Your task to perform on an android device: search for starred emails in the gmail app Image 0: 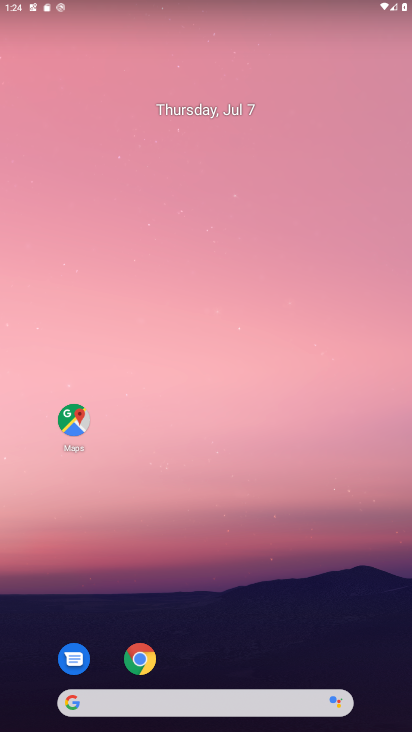
Step 0: drag from (212, 667) to (295, 189)
Your task to perform on an android device: search for starred emails in the gmail app Image 1: 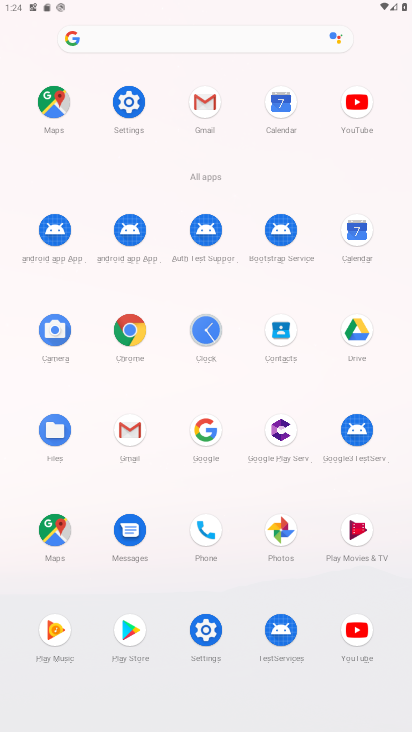
Step 1: click (198, 99)
Your task to perform on an android device: search for starred emails in the gmail app Image 2: 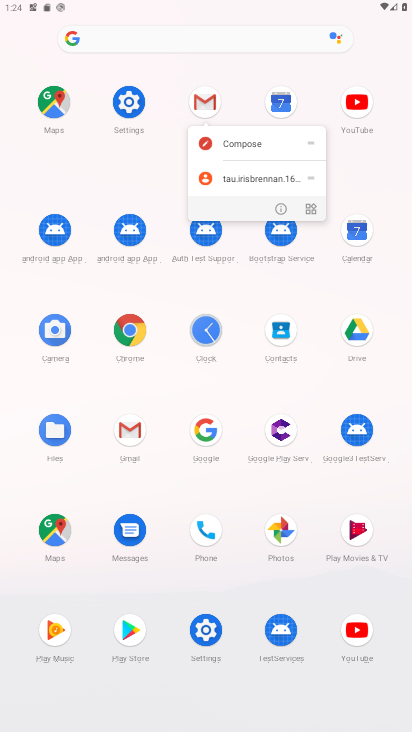
Step 2: click (279, 214)
Your task to perform on an android device: search for starred emails in the gmail app Image 3: 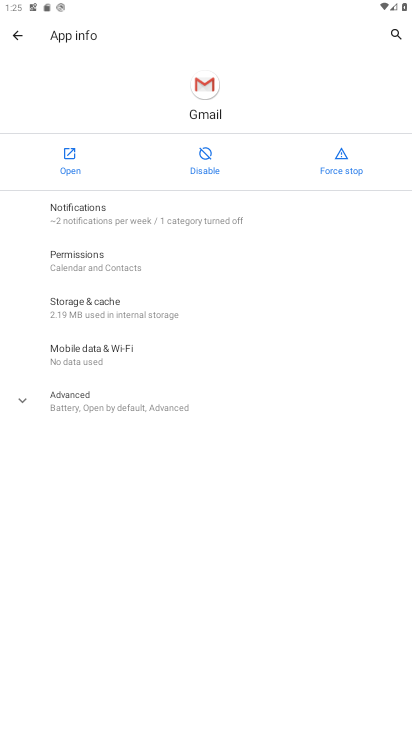
Step 3: click (66, 144)
Your task to perform on an android device: search for starred emails in the gmail app Image 4: 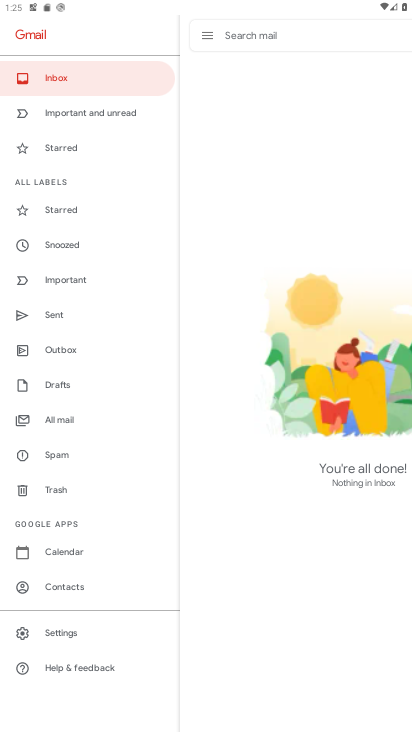
Step 4: click (77, 208)
Your task to perform on an android device: search for starred emails in the gmail app Image 5: 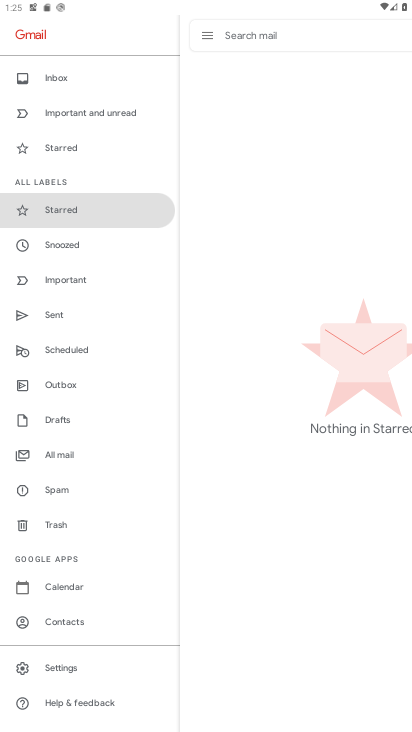
Step 5: task complete